Your task to perform on an android device: Is it going to rain today? Image 0: 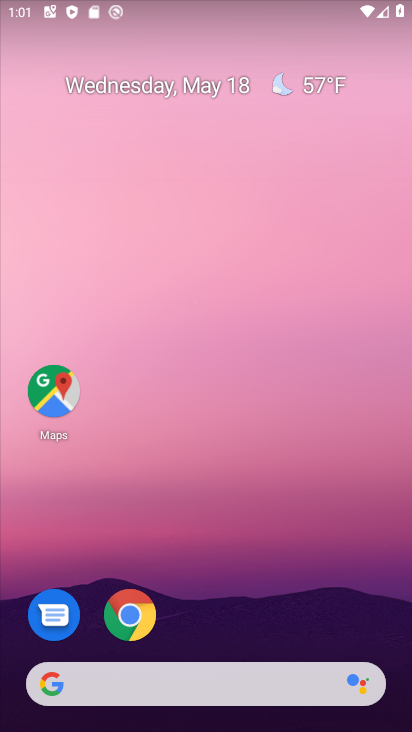
Step 0: drag from (368, 612) to (266, 72)
Your task to perform on an android device: Is it going to rain today? Image 1: 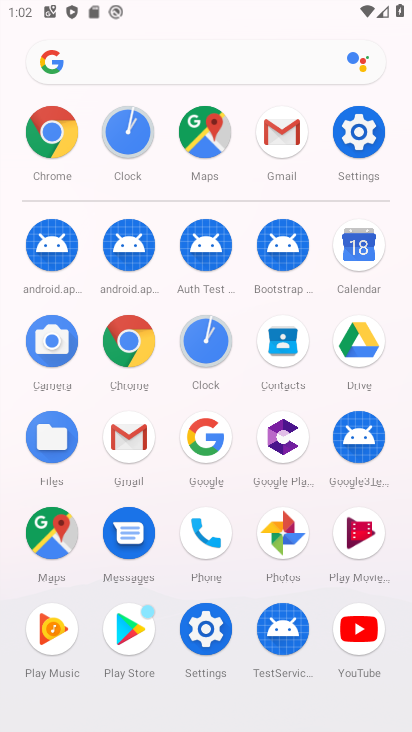
Step 1: click (209, 437)
Your task to perform on an android device: Is it going to rain today? Image 2: 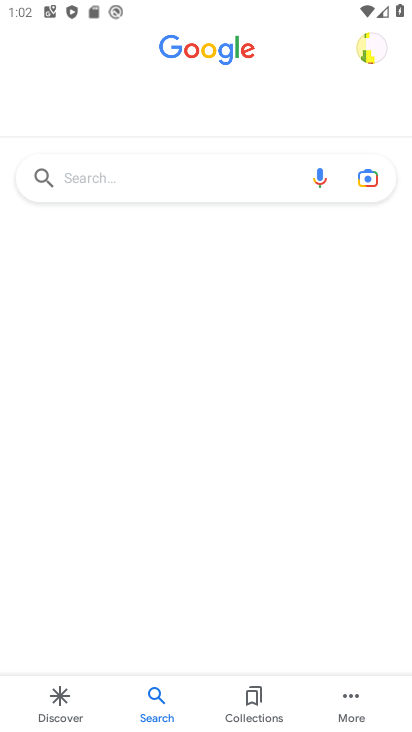
Step 2: click (126, 181)
Your task to perform on an android device: Is it going to rain today? Image 3: 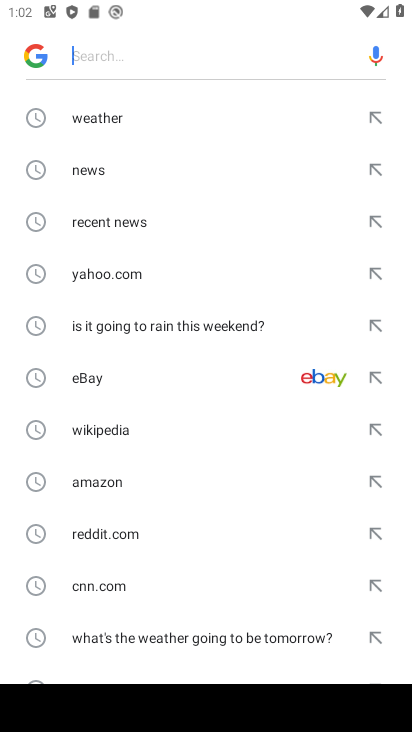
Step 3: drag from (206, 565) to (229, 251)
Your task to perform on an android device: Is it going to rain today? Image 4: 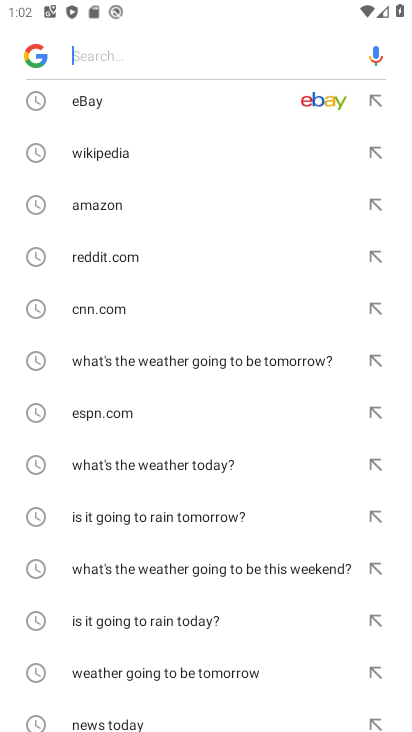
Step 4: click (198, 622)
Your task to perform on an android device: Is it going to rain today? Image 5: 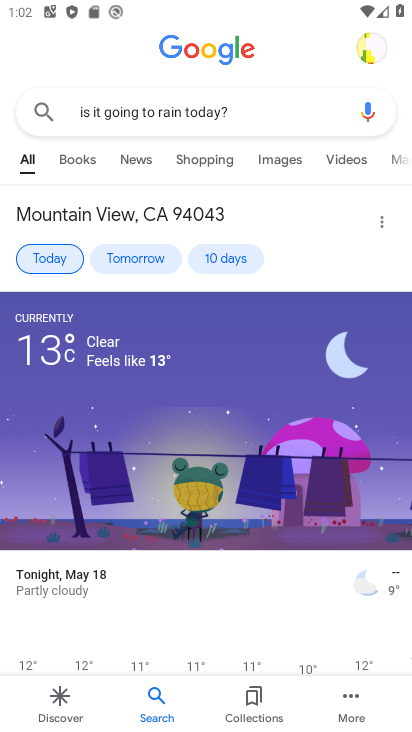
Step 5: task complete